Your task to perform on an android device: change text size in settings app Image 0: 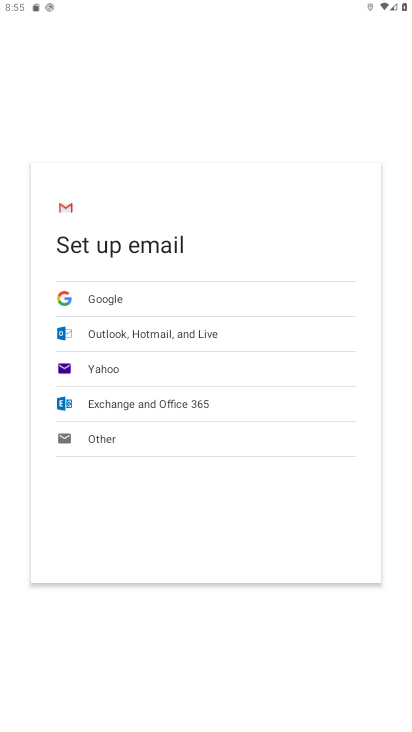
Step 0: press back button
Your task to perform on an android device: change text size in settings app Image 1: 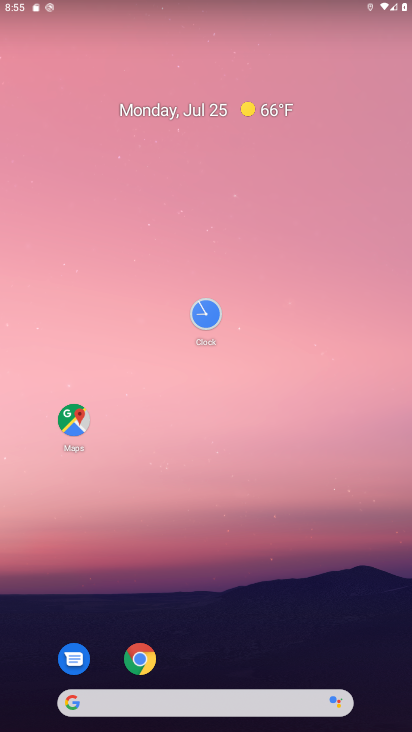
Step 1: drag from (265, 573) to (122, 69)
Your task to perform on an android device: change text size in settings app Image 2: 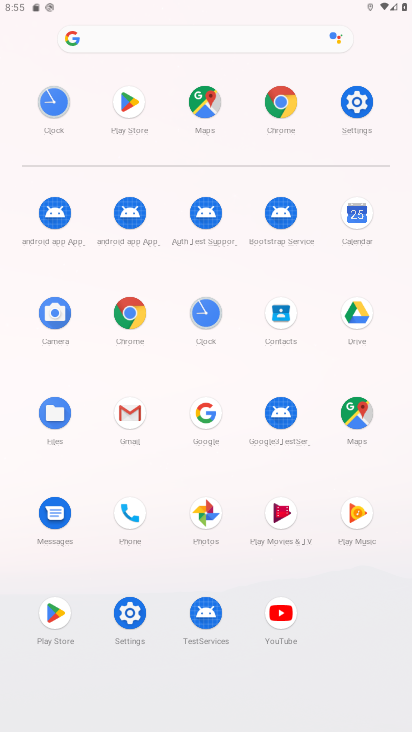
Step 2: click (358, 103)
Your task to perform on an android device: change text size in settings app Image 3: 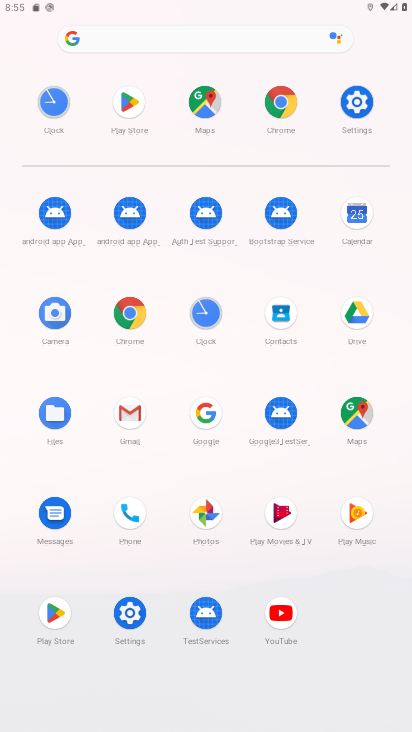
Step 3: click (357, 102)
Your task to perform on an android device: change text size in settings app Image 4: 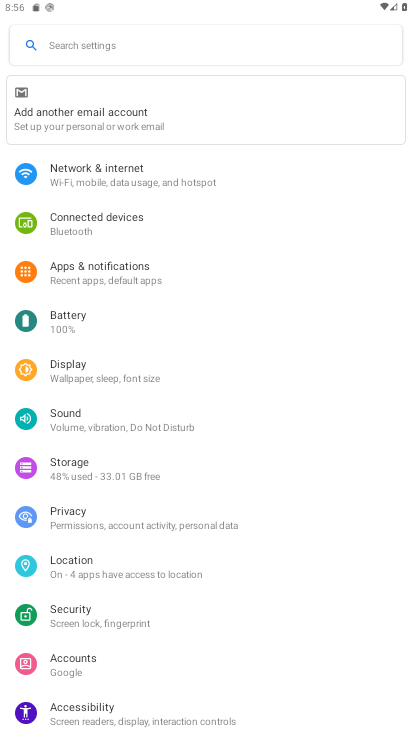
Step 4: click (68, 375)
Your task to perform on an android device: change text size in settings app Image 5: 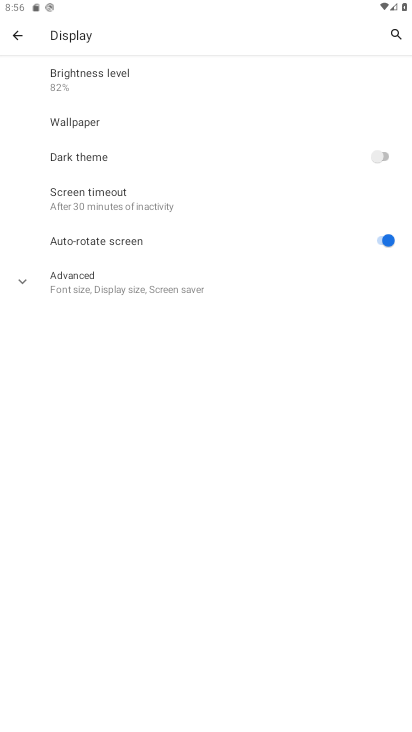
Step 5: click (92, 282)
Your task to perform on an android device: change text size in settings app Image 6: 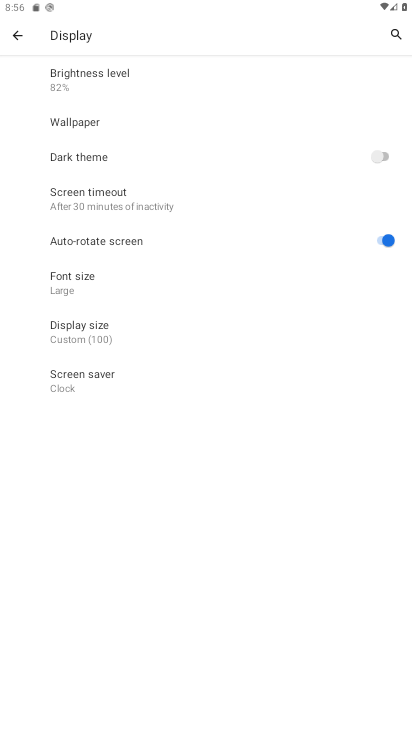
Step 6: click (60, 289)
Your task to perform on an android device: change text size in settings app Image 7: 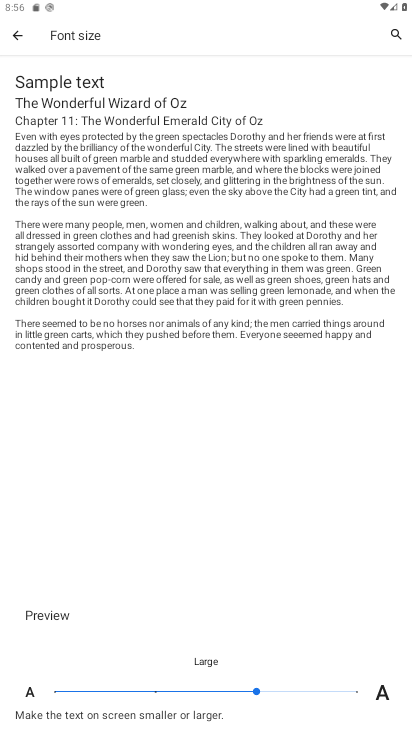
Step 7: click (356, 685)
Your task to perform on an android device: change text size in settings app Image 8: 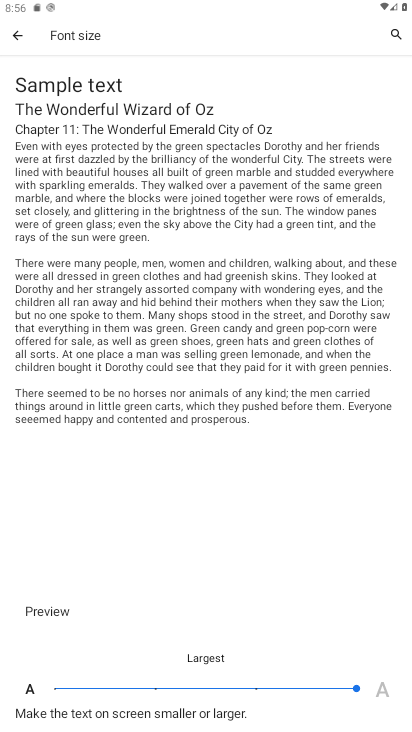
Step 8: task complete